Your task to perform on an android device: Go to Android settings Image 0: 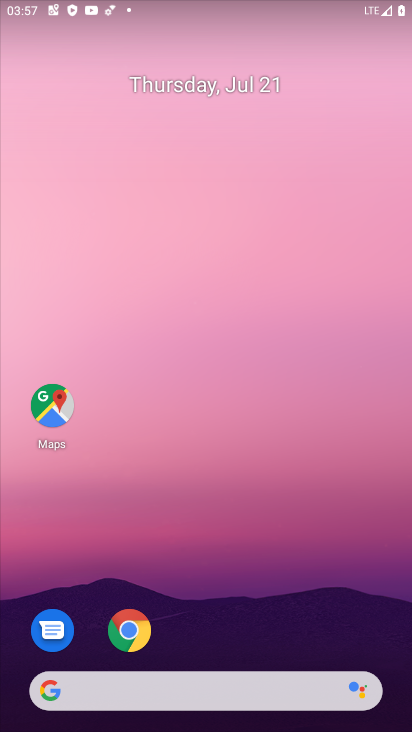
Step 0: drag from (230, 643) to (240, 84)
Your task to perform on an android device: Go to Android settings Image 1: 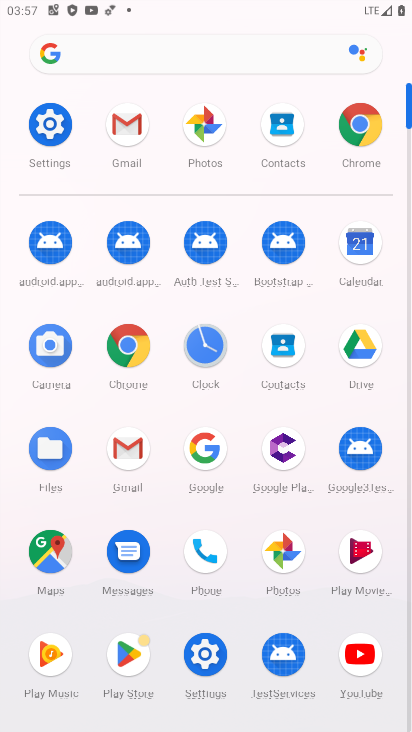
Step 1: click (57, 119)
Your task to perform on an android device: Go to Android settings Image 2: 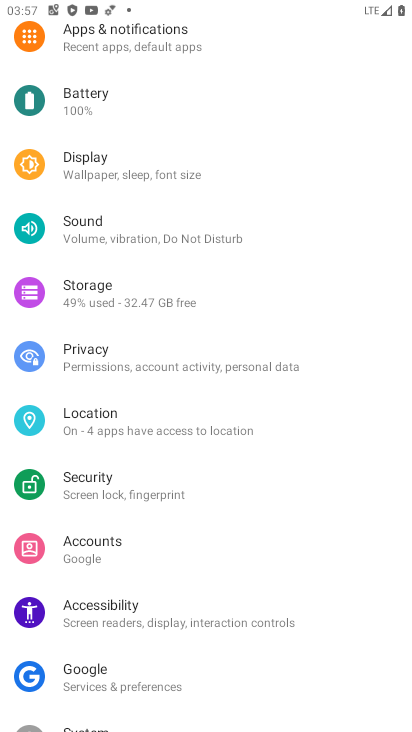
Step 2: task complete